Your task to perform on an android device: check android version Image 0: 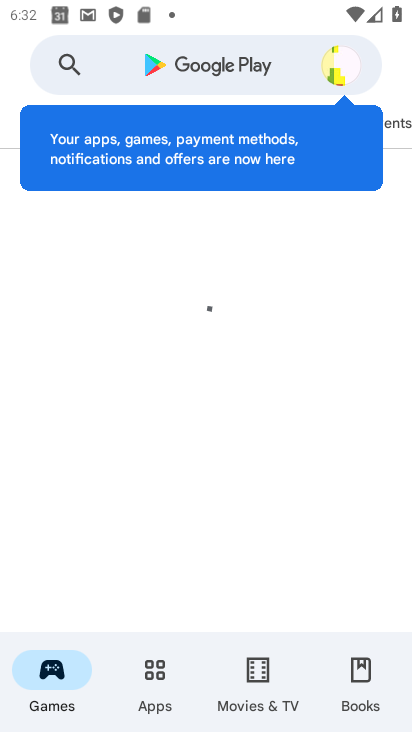
Step 0: press home button
Your task to perform on an android device: check android version Image 1: 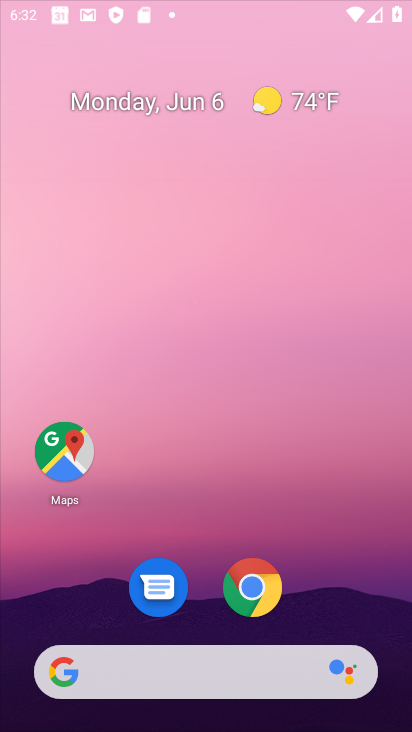
Step 1: drag from (370, 637) to (326, 36)
Your task to perform on an android device: check android version Image 2: 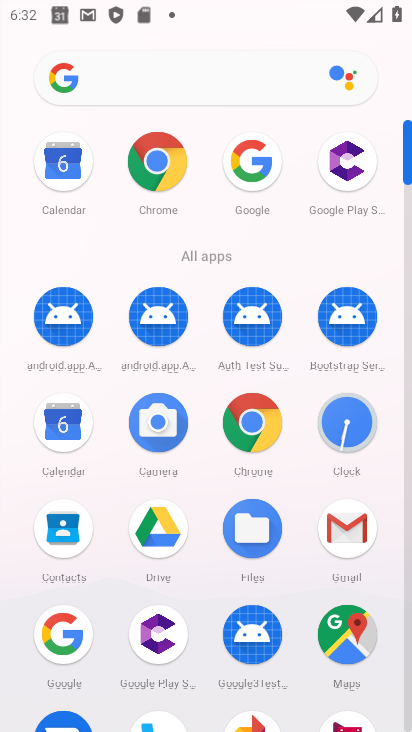
Step 2: drag from (204, 622) to (196, 124)
Your task to perform on an android device: check android version Image 3: 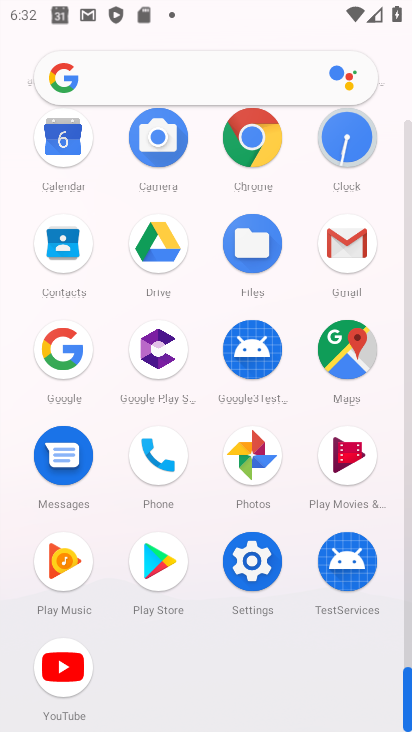
Step 3: click (253, 576)
Your task to perform on an android device: check android version Image 4: 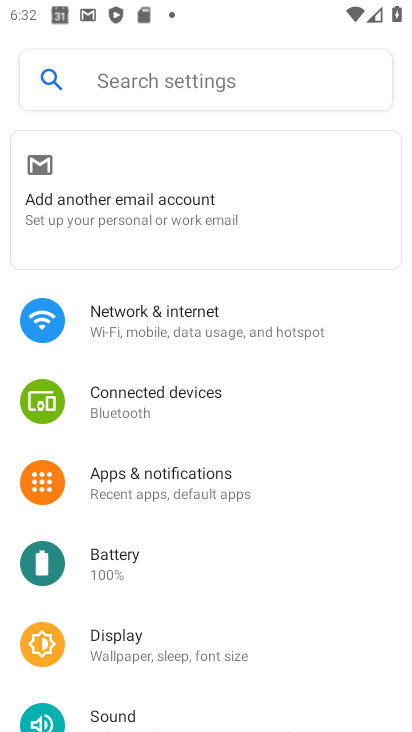
Step 4: drag from (149, 675) to (239, 80)
Your task to perform on an android device: check android version Image 5: 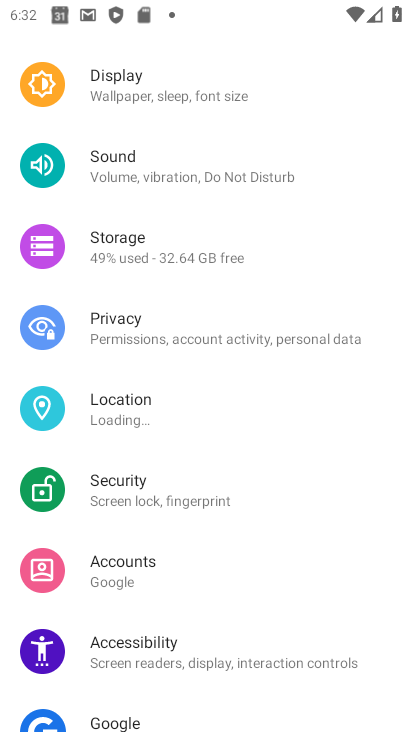
Step 5: drag from (198, 712) to (305, 49)
Your task to perform on an android device: check android version Image 6: 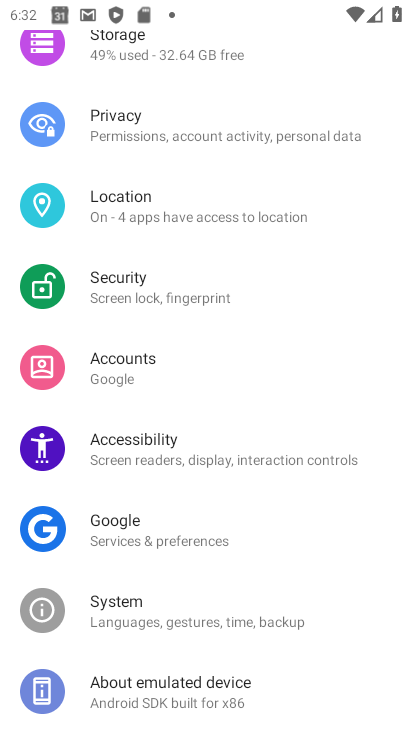
Step 6: click (171, 688)
Your task to perform on an android device: check android version Image 7: 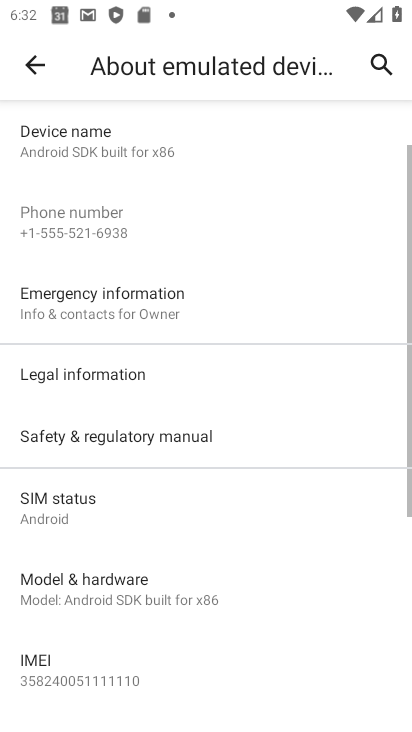
Step 7: drag from (100, 662) to (188, 84)
Your task to perform on an android device: check android version Image 8: 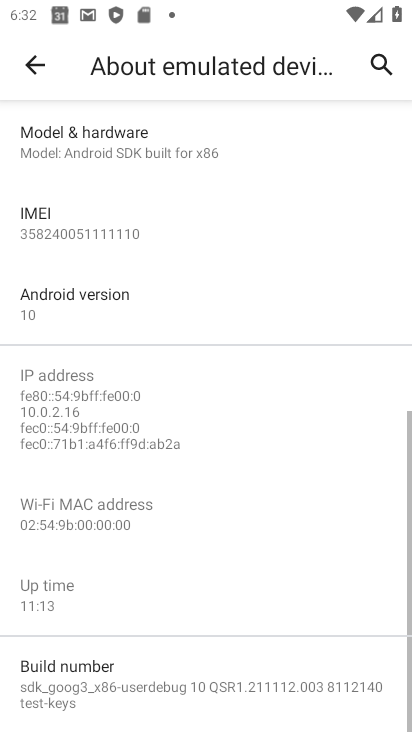
Step 8: click (125, 310)
Your task to perform on an android device: check android version Image 9: 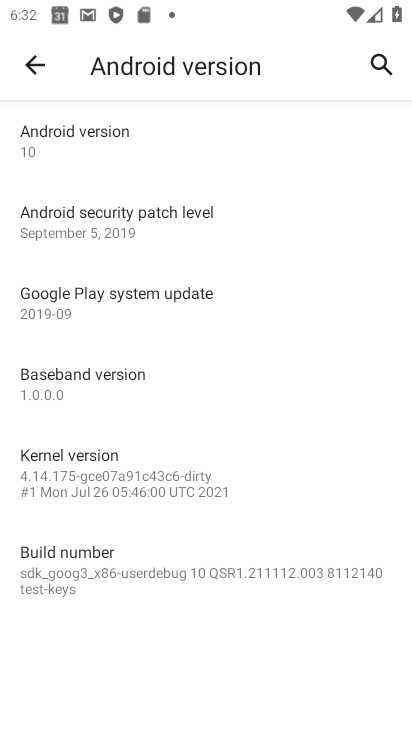
Step 9: task complete